Your task to perform on an android device: make emails show in primary in the gmail app Image 0: 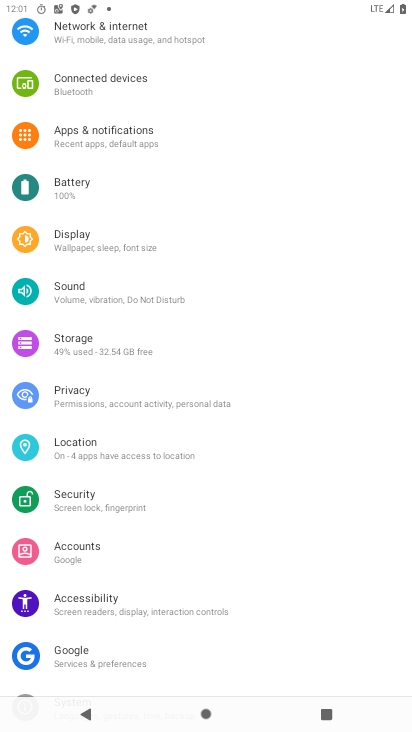
Step 0: press home button
Your task to perform on an android device: make emails show in primary in the gmail app Image 1: 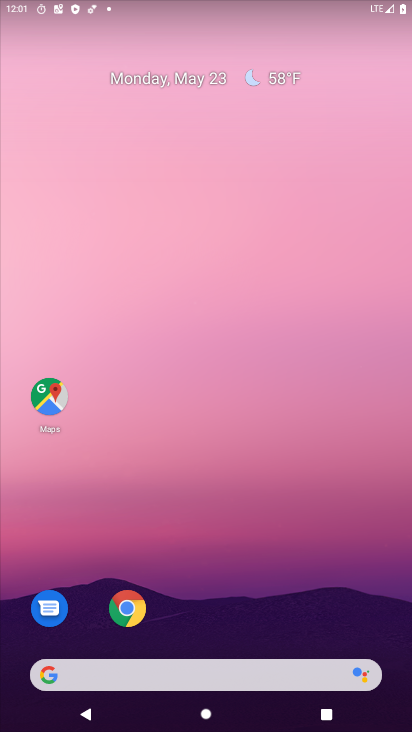
Step 1: drag from (271, 606) to (163, 106)
Your task to perform on an android device: make emails show in primary in the gmail app Image 2: 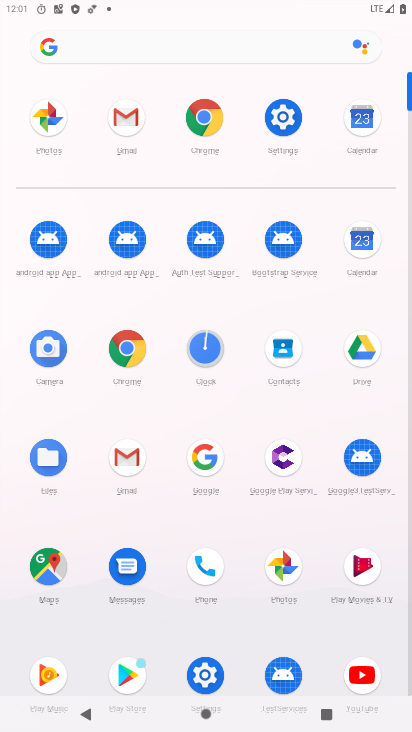
Step 2: click (115, 128)
Your task to perform on an android device: make emails show in primary in the gmail app Image 3: 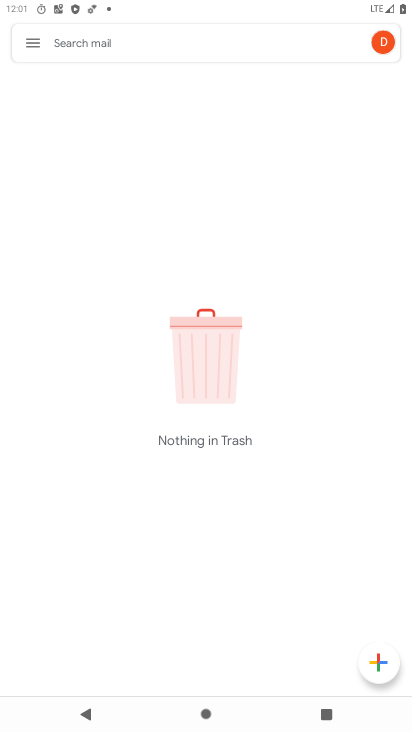
Step 3: click (33, 39)
Your task to perform on an android device: make emails show in primary in the gmail app Image 4: 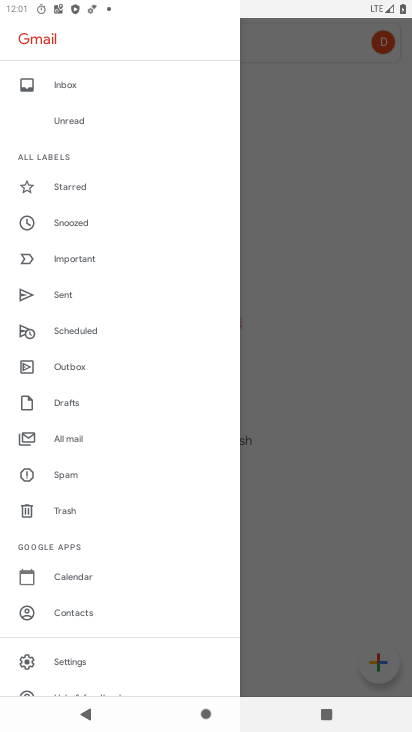
Step 4: click (132, 663)
Your task to perform on an android device: make emails show in primary in the gmail app Image 5: 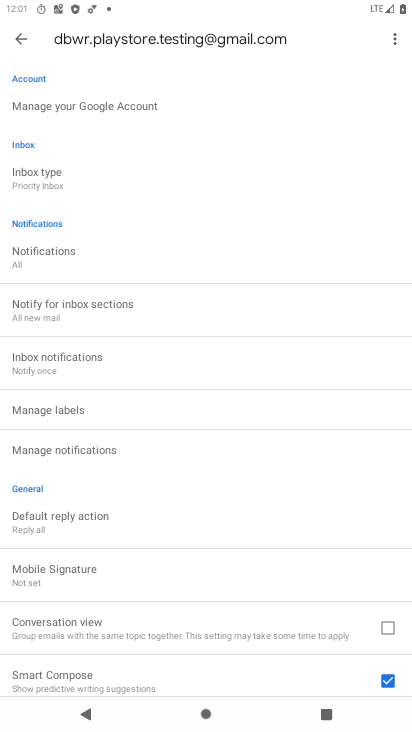
Step 5: click (129, 173)
Your task to perform on an android device: make emails show in primary in the gmail app Image 6: 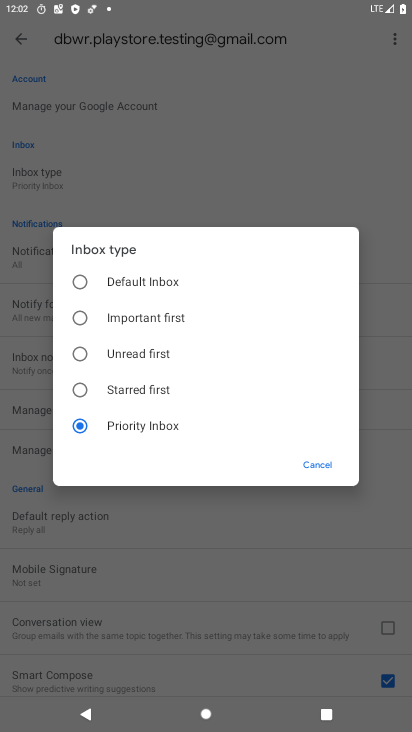
Step 6: click (143, 286)
Your task to perform on an android device: make emails show in primary in the gmail app Image 7: 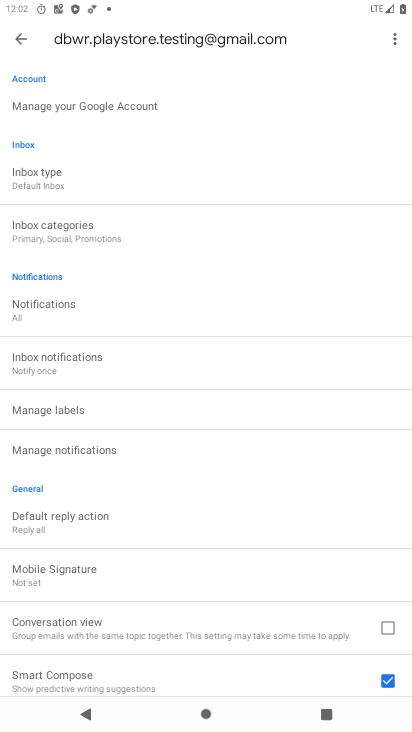
Step 7: task complete